Your task to perform on an android device: check battery use Image 0: 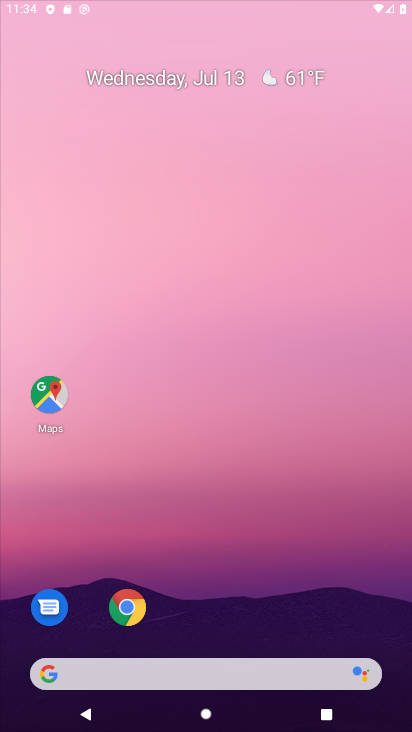
Step 0: drag from (161, 172) to (224, 248)
Your task to perform on an android device: check battery use Image 1: 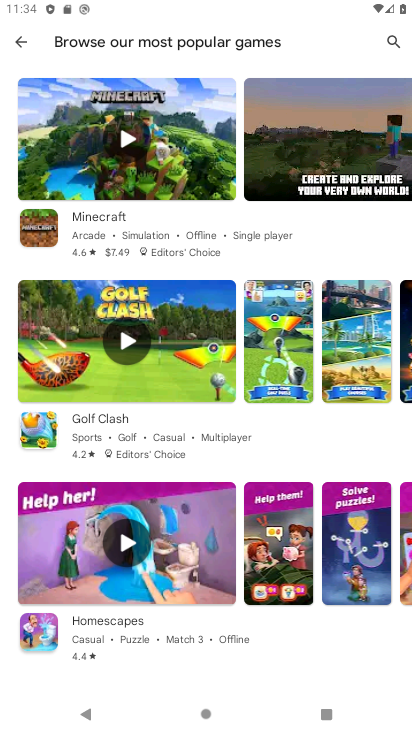
Step 1: press home button
Your task to perform on an android device: check battery use Image 2: 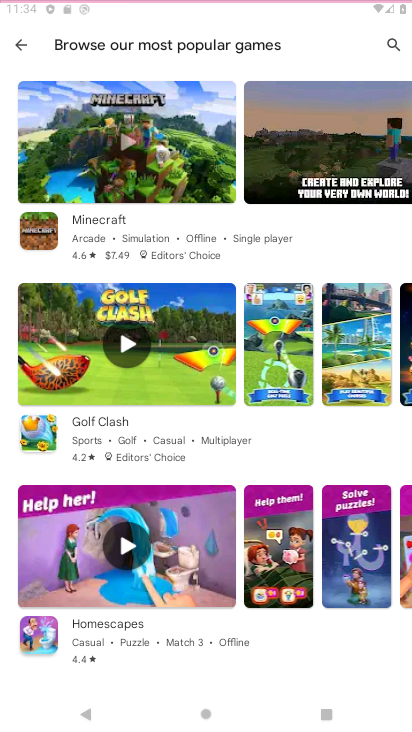
Step 2: drag from (229, 540) to (218, 182)
Your task to perform on an android device: check battery use Image 3: 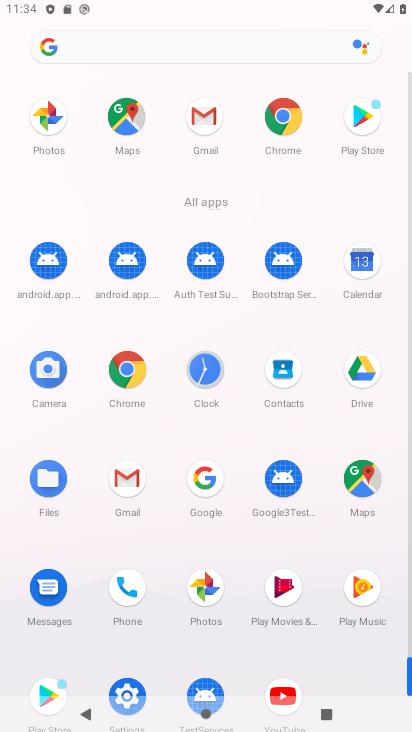
Step 3: drag from (170, 564) to (165, 276)
Your task to perform on an android device: check battery use Image 4: 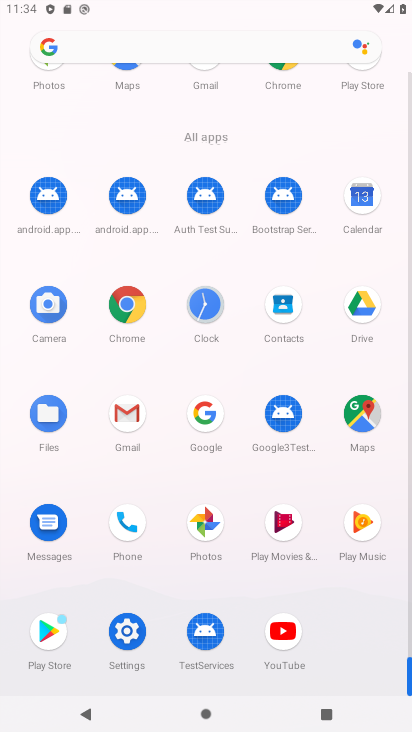
Step 4: drag from (161, 591) to (130, 349)
Your task to perform on an android device: check battery use Image 5: 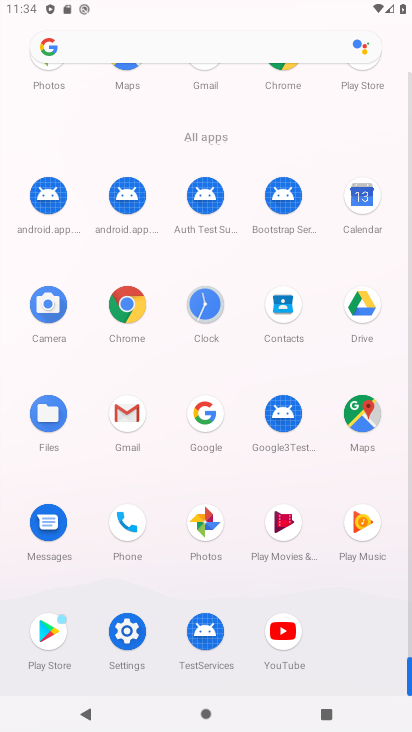
Step 5: click (120, 623)
Your task to perform on an android device: check battery use Image 6: 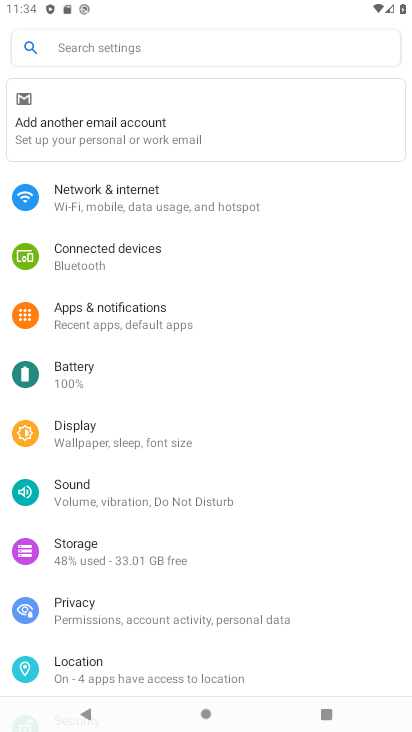
Step 6: click (133, 377)
Your task to perform on an android device: check battery use Image 7: 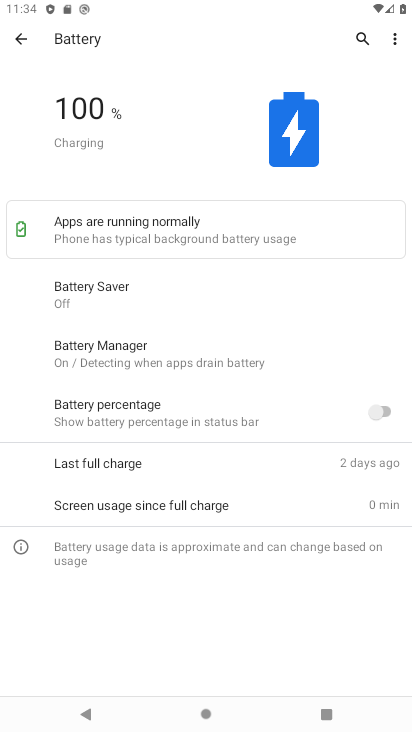
Step 7: drag from (171, 568) to (201, 223)
Your task to perform on an android device: check battery use Image 8: 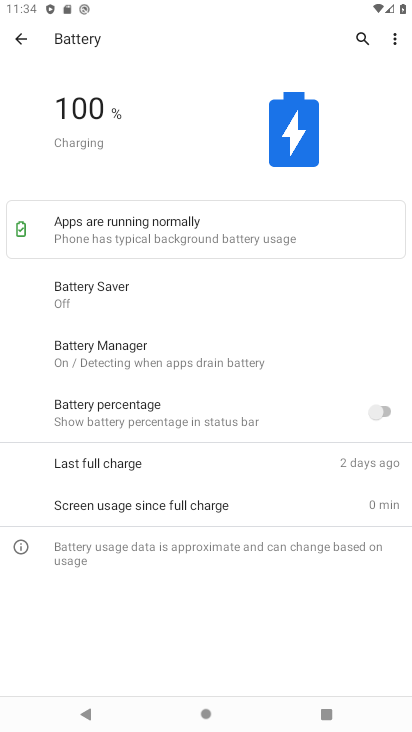
Step 8: click (396, 37)
Your task to perform on an android device: check battery use Image 9: 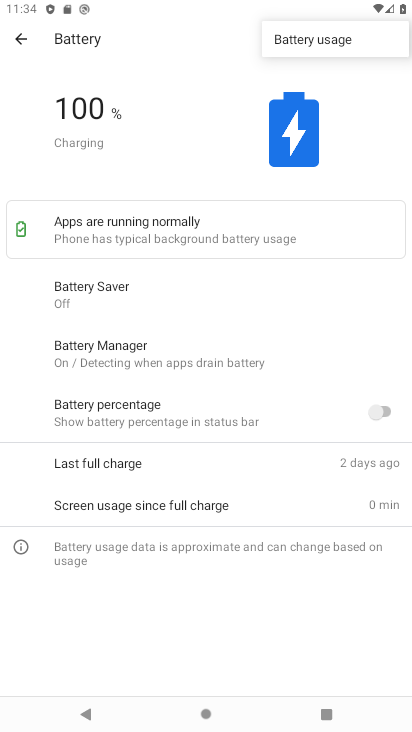
Step 9: click (325, 36)
Your task to perform on an android device: check battery use Image 10: 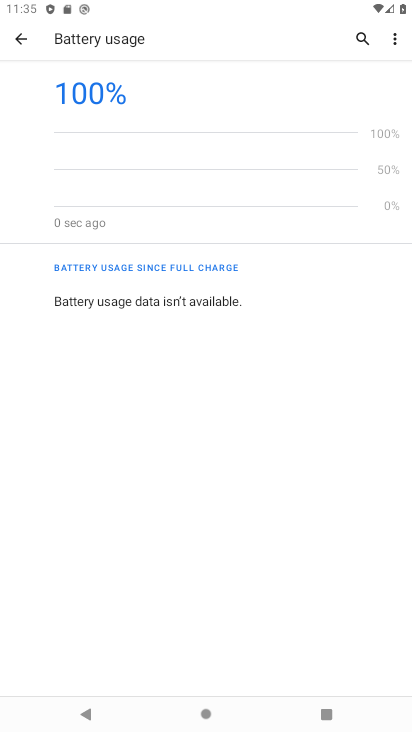
Step 10: task complete